Your task to perform on an android device: Open display settings Image 0: 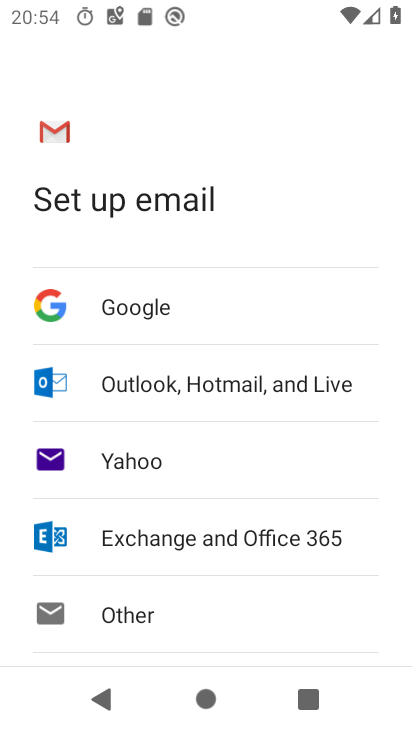
Step 0: press home button
Your task to perform on an android device: Open display settings Image 1: 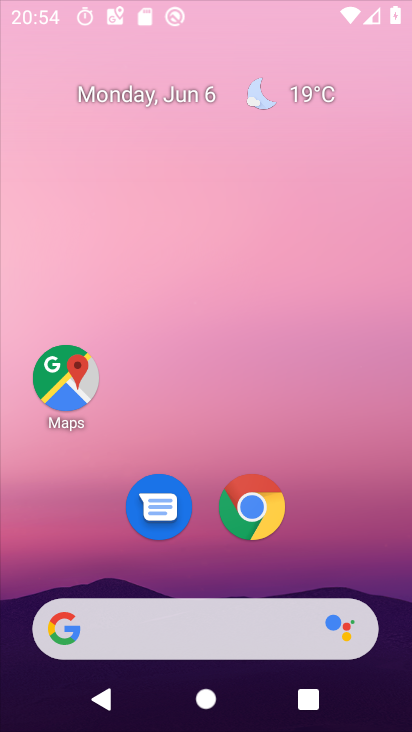
Step 1: press home button
Your task to perform on an android device: Open display settings Image 2: 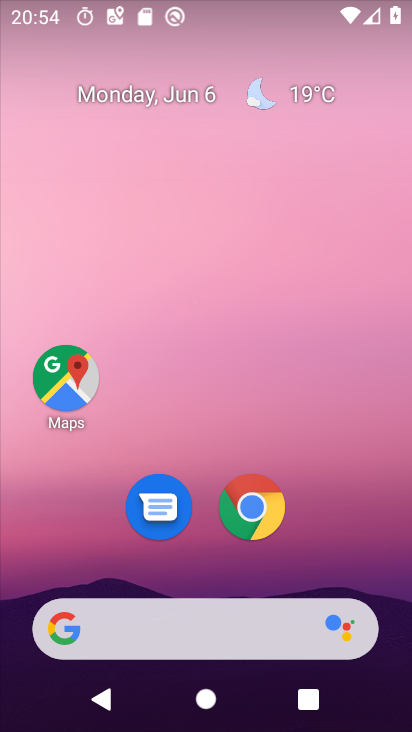
Step 2: drag from (389, 522) to (267, 6)
Your task to perform on an android device: Open display settings Image 3: 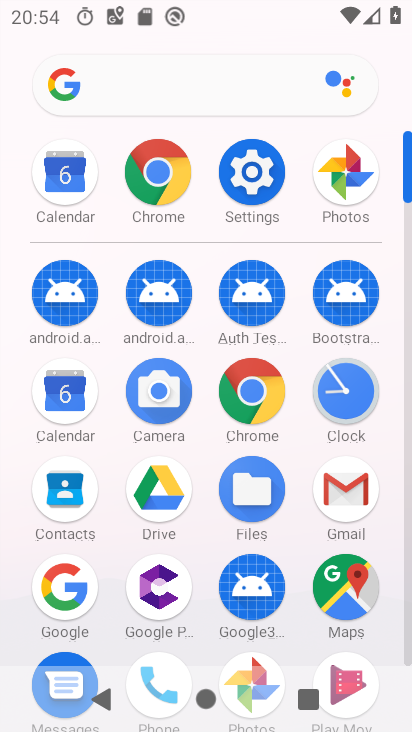
Step 3: click (247, 202)
Your task to perform on an android device: Open display settings Image 4: 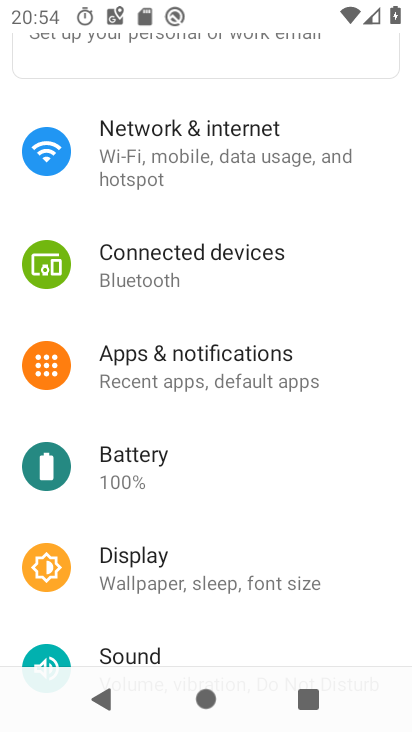
Step 4: click (166, 551)
Your task to perform on an android device: Open display settings Image 5: 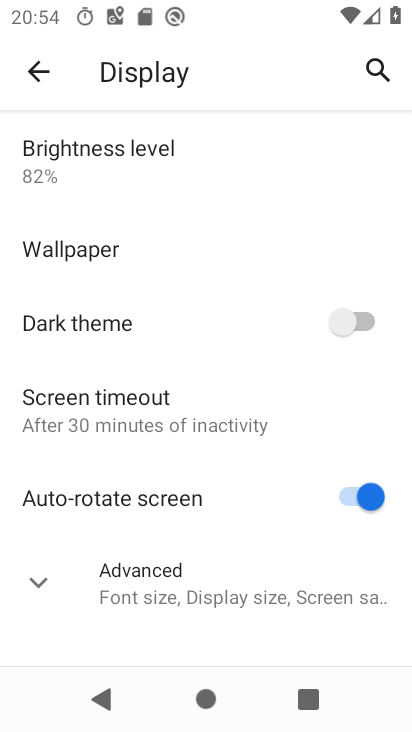
Step 5: task complete